Your task to perform on an android device: check the backup settings in the google photos Image 0: 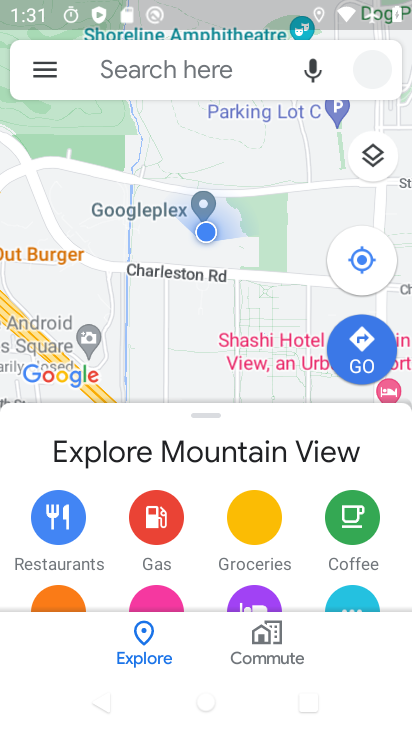
Step 0: press home button
Your task to perform on an android device: check the backup settings in the google photos Image 1: 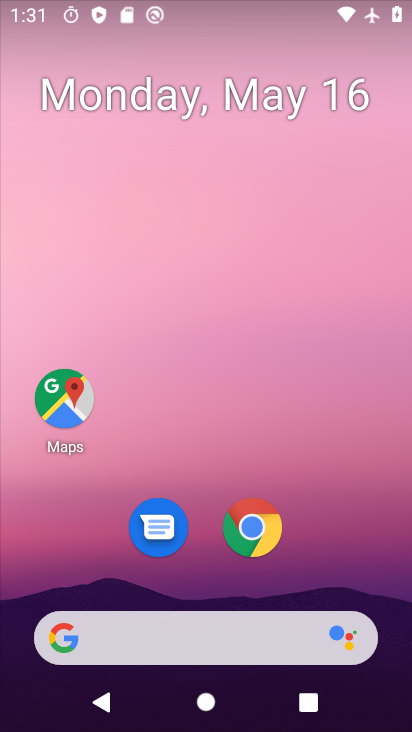
Step 1: drag from (167, 647) to (305, 210)
Your task to perform on an android device: check the backup settings in the google photos Image 2: 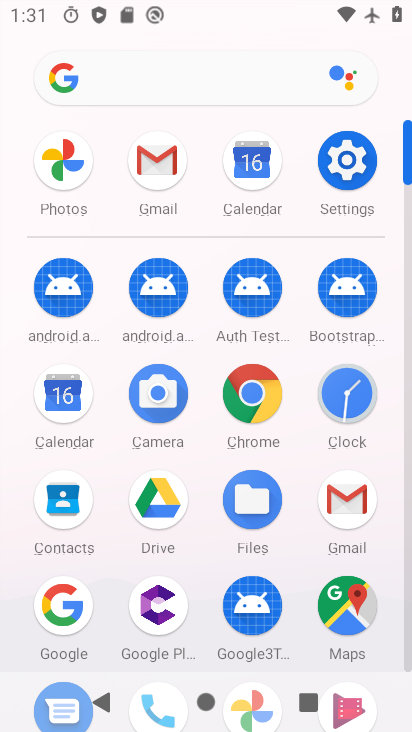
Step 2: click (65, 172)
Your task to perform on an android device: check the backup settings in the google photos Image 3: 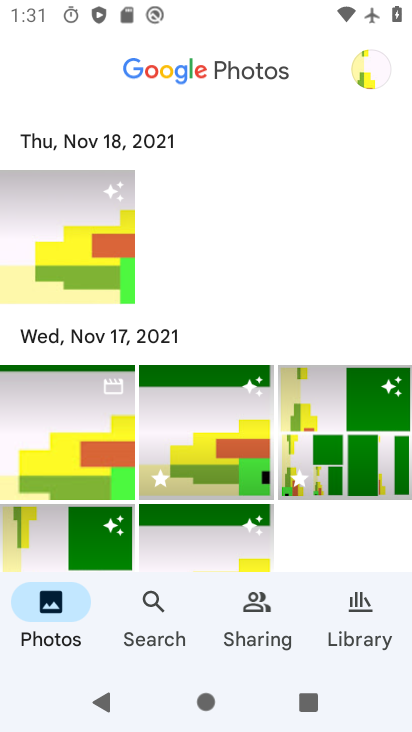
Step 3: click (371, 67)
Your task to perform on an android device: check the backup settings in the google photos Image 4: 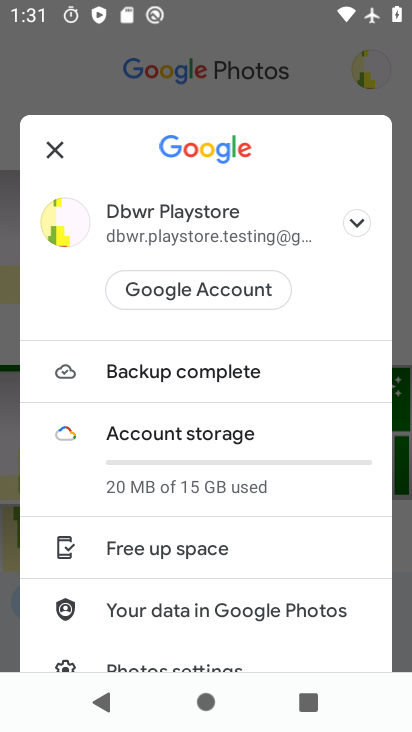
Step 4: drag from (223, 599) to (346, 274)
Your task to perform on an android device: check the backup settings in the google photos Image 5: 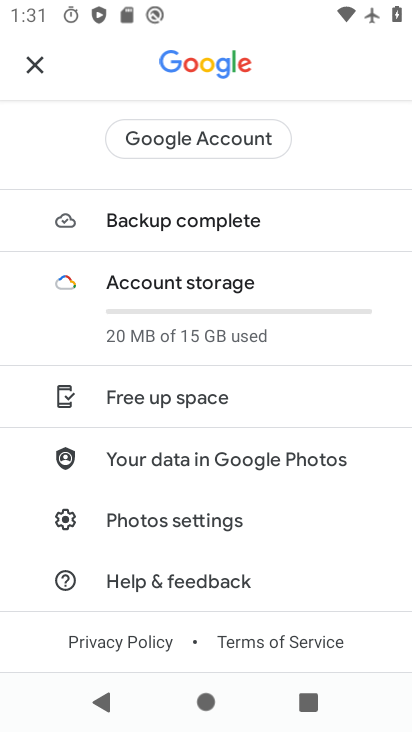
Step 5: click (185, 519)
Your task to perform on an android device: check the backup settings in the google photos Image 6: 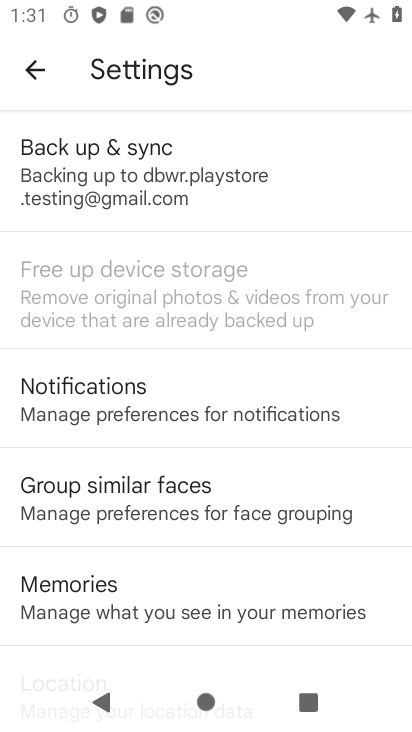
Step 6: click (148, 189)
Your task to perform on an android device: check the backup settings in the google photos Image 7: 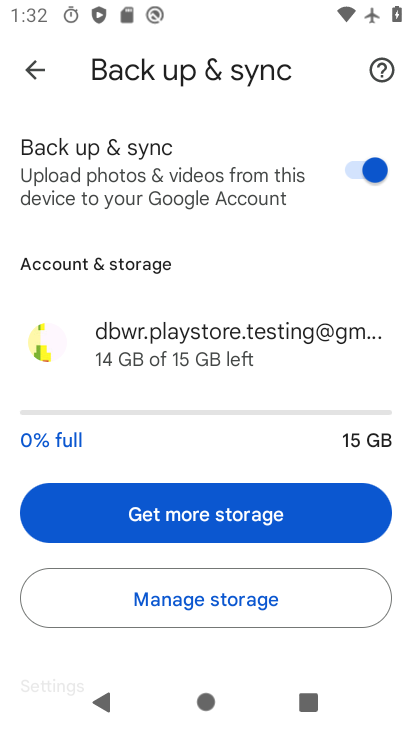
Step 7: task complete